Your task to perform on an android device: find snoozed emails in the gmail app Image 0: 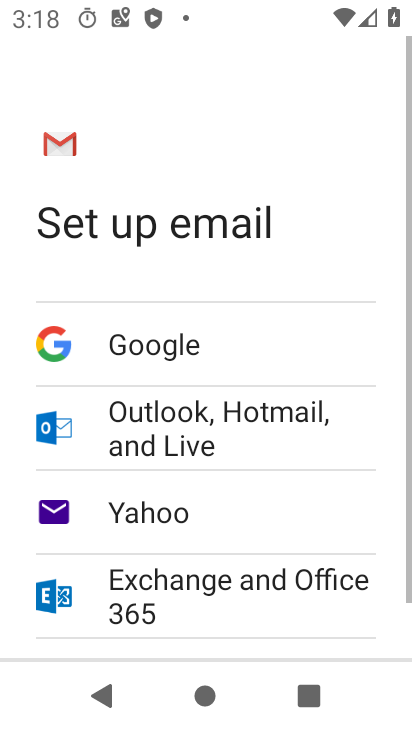
Step 0: press home button
Your task to perform on an android device: find snoozed emails in the gmail app Image 1: 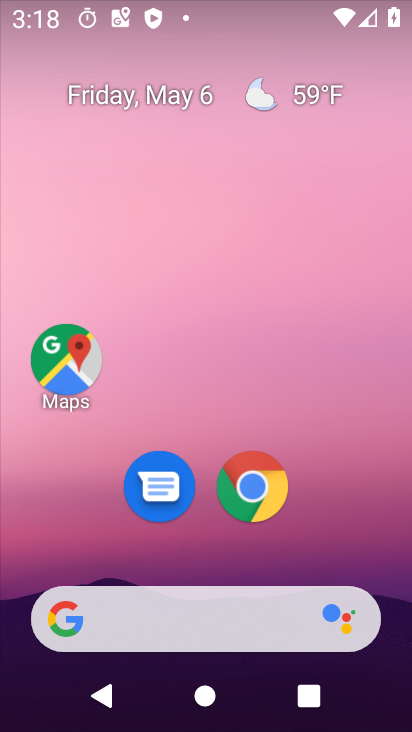
Step 1: drag from (358, 521) to (301, 198)
Your task to perform on an android device: find snoozed emails in the gmail app Image 2: 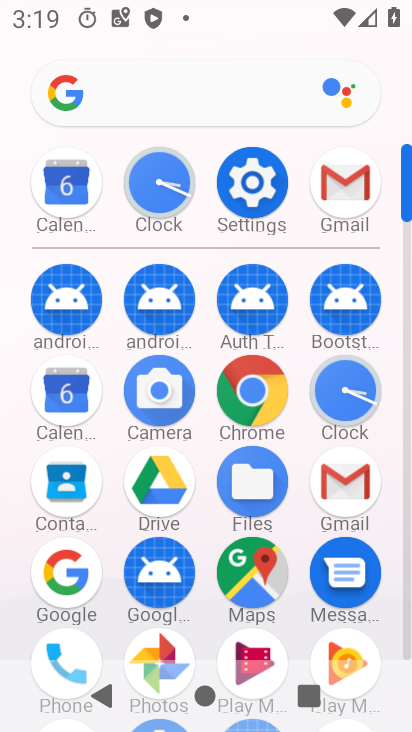
Step 2: click (332, 196)
Your task to perform on an android device: find snoozed emails in the gmail app Image 3: 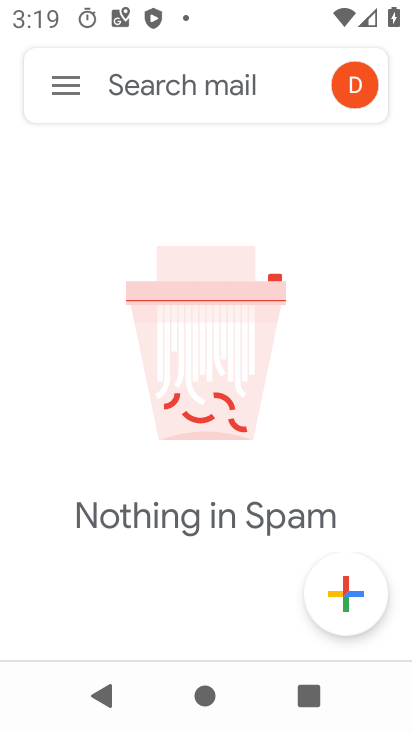
Step 3: click (67, 86)
Your task to perform on an android device: find snoozed emails in the gmail app Image 4: 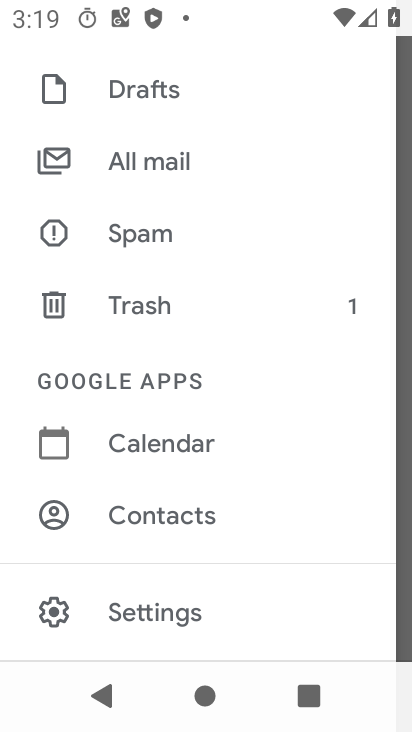
Step 4: drag from (236, 204) to (276, 504)
Your task to perform on an android device: find snoozed emails in the gmail app Image 5: 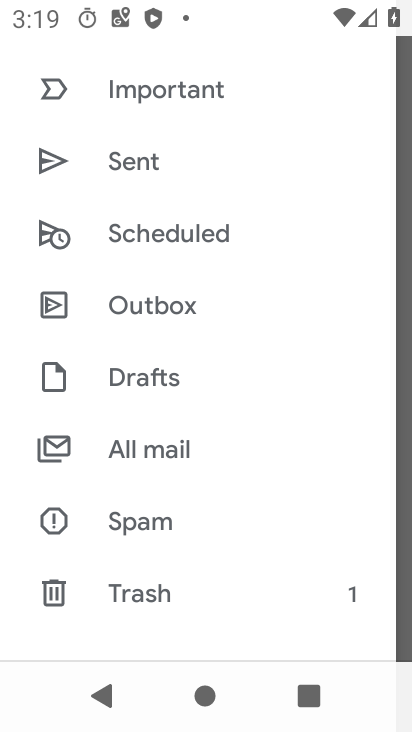
Step 5: drag from (266, 164) to (316, 569)
Your task to perform on an android device: find snoozed emails in the gmail app Image 6: 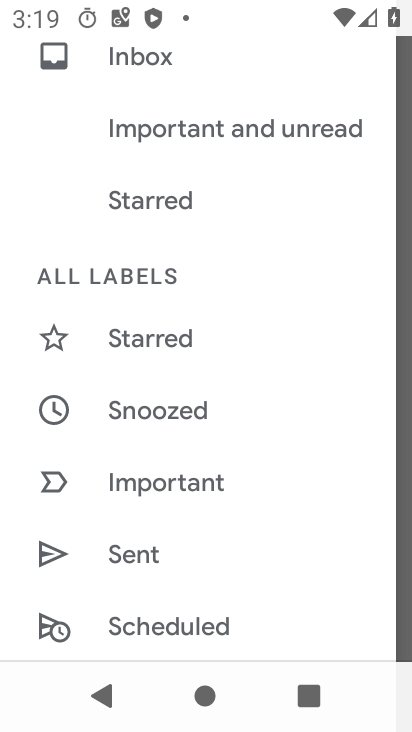
Step 6: click (160, 411)
Your task to perform on an android device: find snoozed emails in the gmail app Image 7: 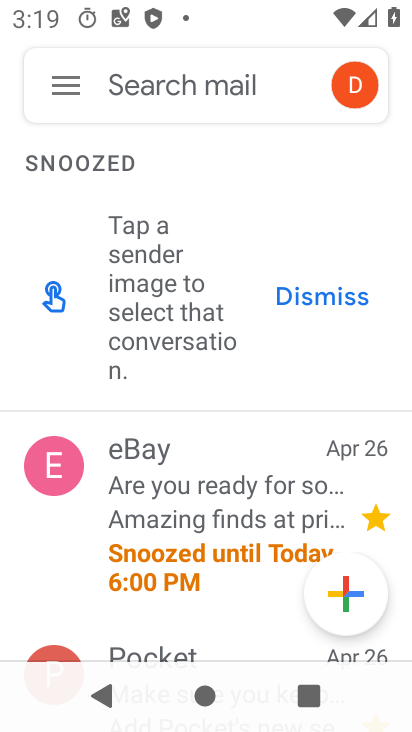
Step 7: task complete